Your task to perform on an android device: create a new album in the google photos Image 0: 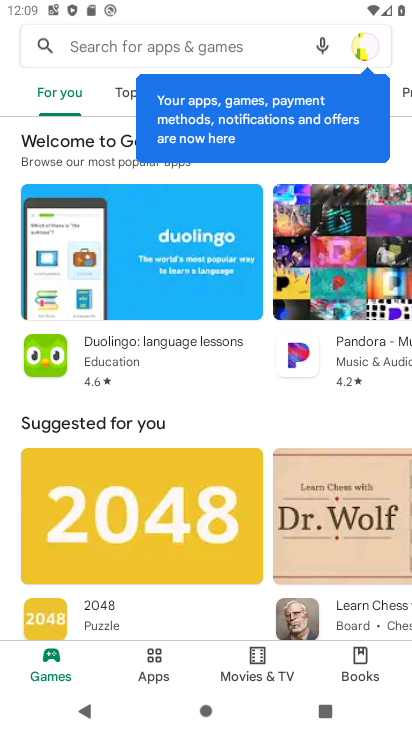
Step 0: press home button
Your task to perform on an android device: create a new album in the google photos Image 1: 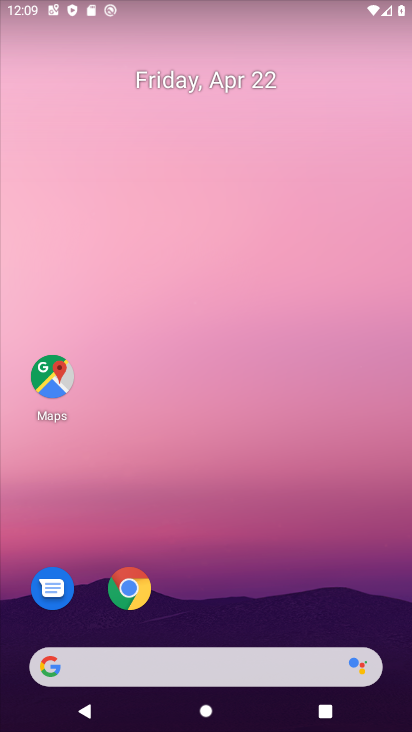
Step 1: drag from (282, 573) to (288, 57)
Your task to perform on an android device: create a new album in the google photos Image 2: 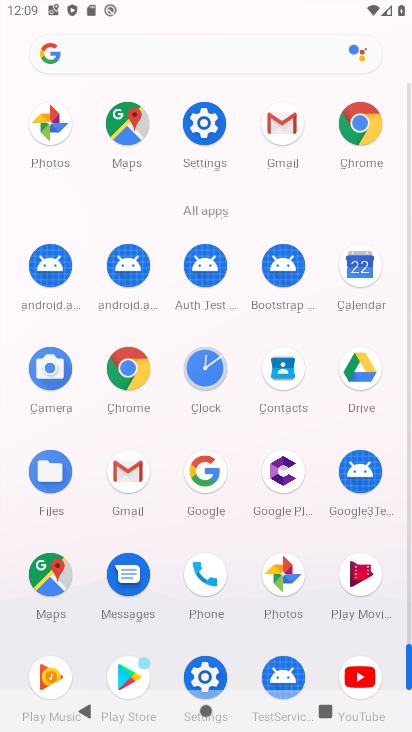
Step 2: drag from (230, 345) to (235, 49)
Your task to perform on an android device: create a new album in the google photos Image 3: 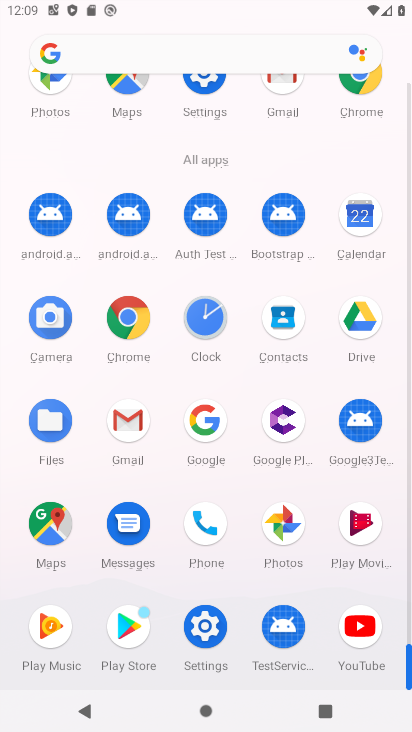
Step 3: click (282, 528)
Your task to perform on an android device: create a new album in the google photos Image 4: 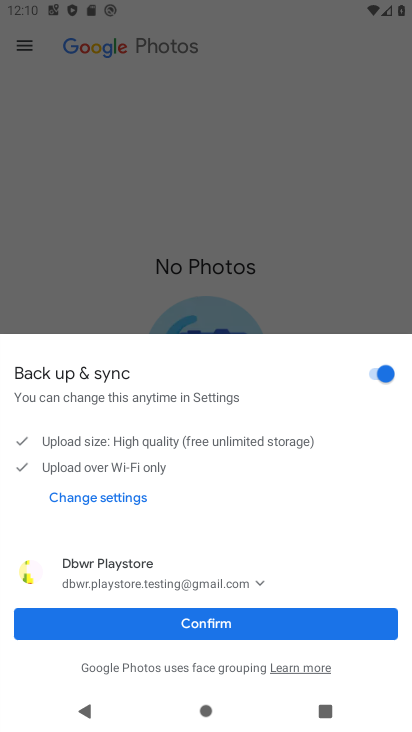
Step 4: click (220, 623)
Your task to perform on an android device: create a new album in the google photos Image 5: 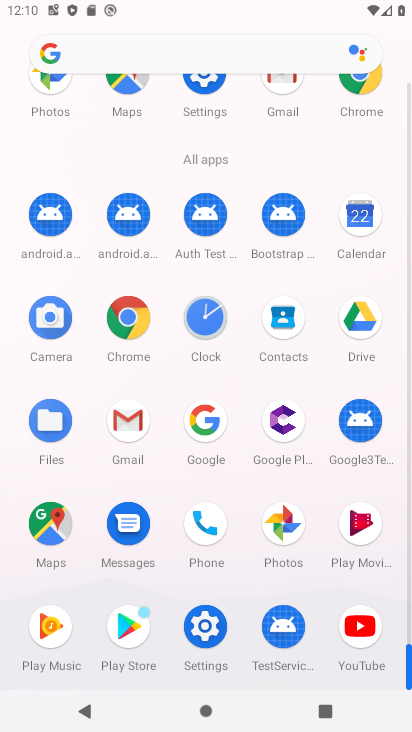
Step 5: click (288, 517)
Your task to perform on an android device: create a new album in the google photos Image 6: 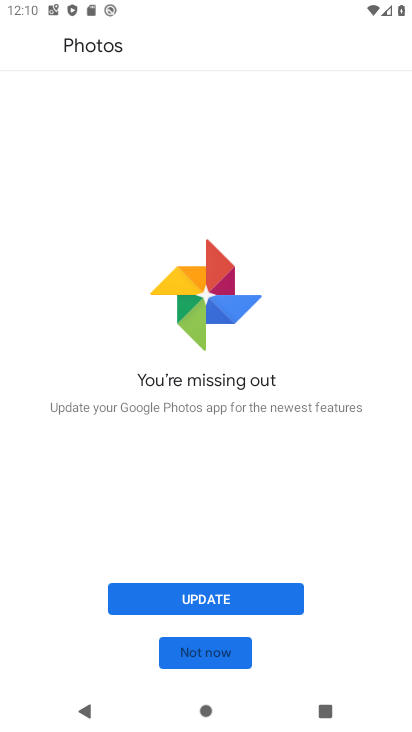
Step 6: click (218, 603)
Your task to perform on an android device: create a new album in the google photos Image 7: 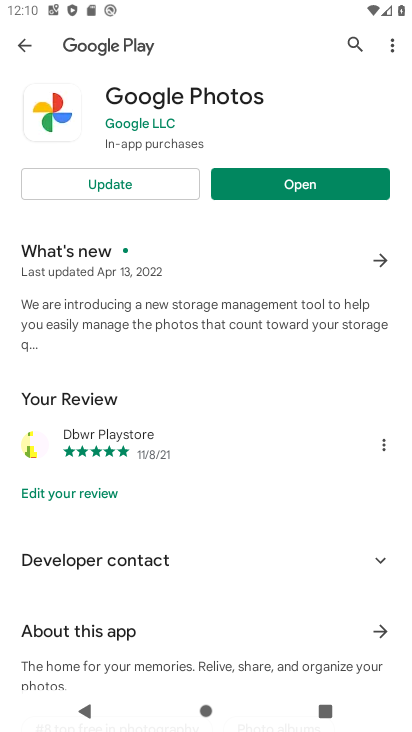
Step 7: click (177, 178)
Your task to perform on an android device: create a new album in the google photos Image 8: 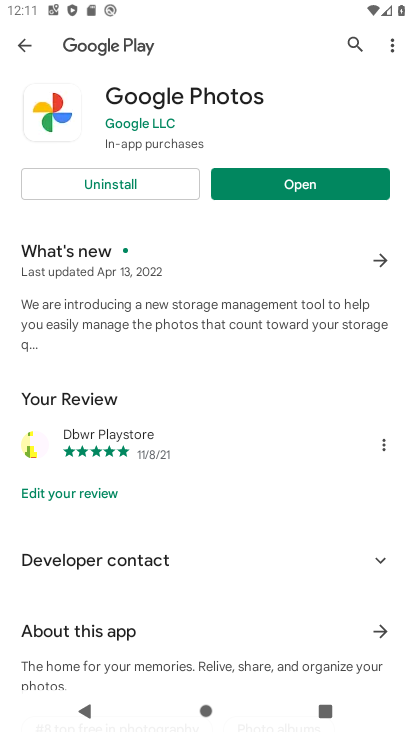
Step 8: task complete